Your task to perform on an android device: Search for vegetarian restaurants on Maps Image 0: 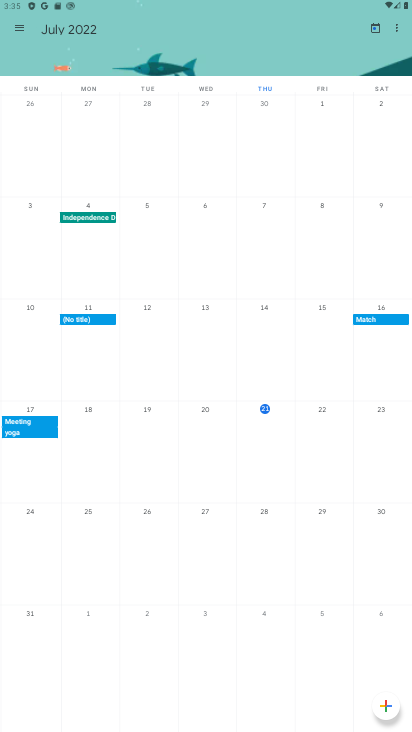
Step 0: press home button
Your task to perform on an android device: Search for vegetarian restaurants on Maps Image 1: 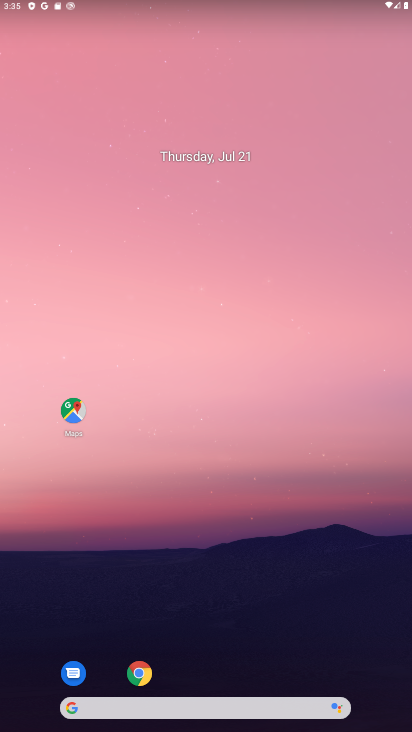
Step 1: drag from (186, 699) to (174, 243)
Your task to perform on an android device: Search for vegetarian restaurants on Maps Image 2: 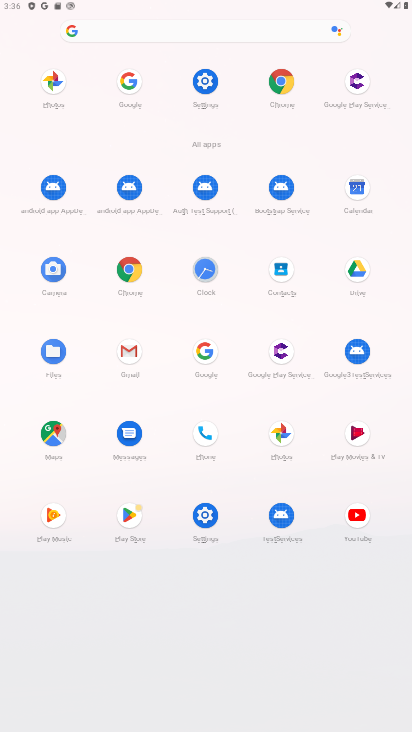
Step 2: click (43, 438)
Your task to perform on an android device: Search for vegetarian restaurants on Maps Image 3: 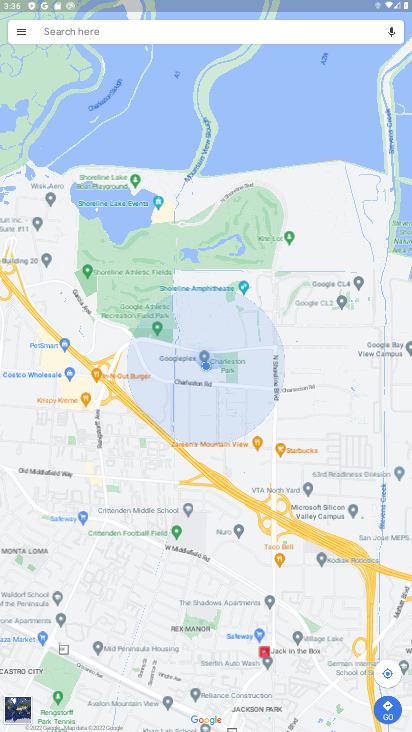
Step 3: click (170, 30)
Your task to perform on an android device: Search for vegetarian restaurants on Maps Image 4: 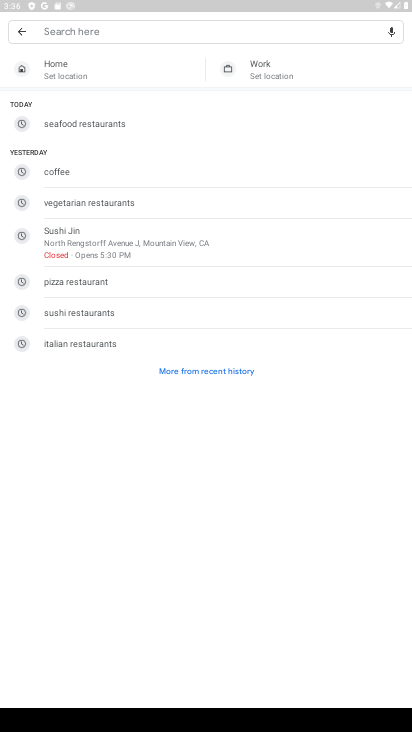
Step 4: click (79, 203)
Your task to perform on an android device: Search for vegetarian restaurants on Maps Image 5: 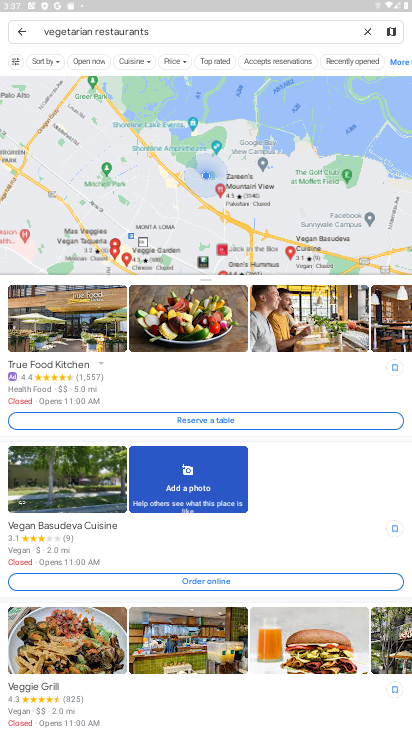
Step 5: task complete